Your task to perform on an android device: Search for pizza restaurants on Maps Image 0: 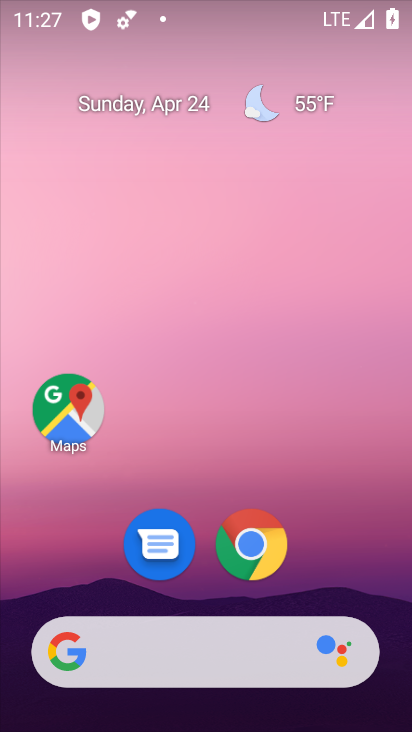
Step 0: click (63, 414)
Your task to perform on an android device: Search for pizza restaurants on Maps Image 1: 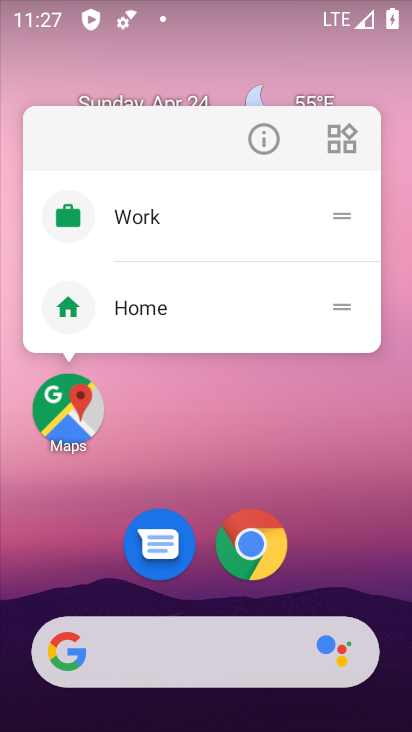
Step 1: click (70, 418)
Your task to perform on an android device: Search for pizza restaurants on Maps Image 2: 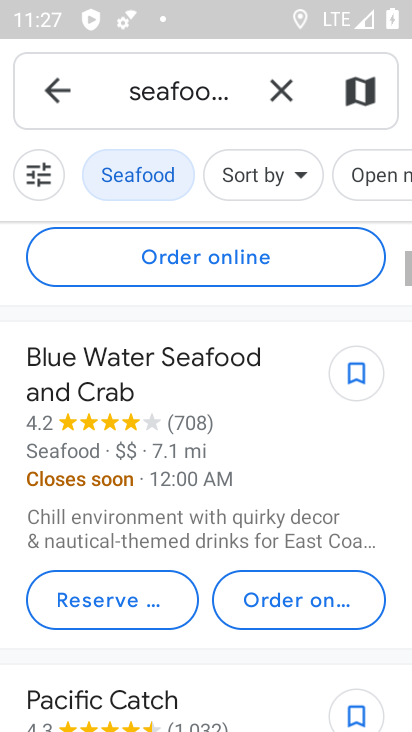
Step 2: click (282, 94)
Your task to perform on an android device: Search for pizza restaurants on Maps Image 3: 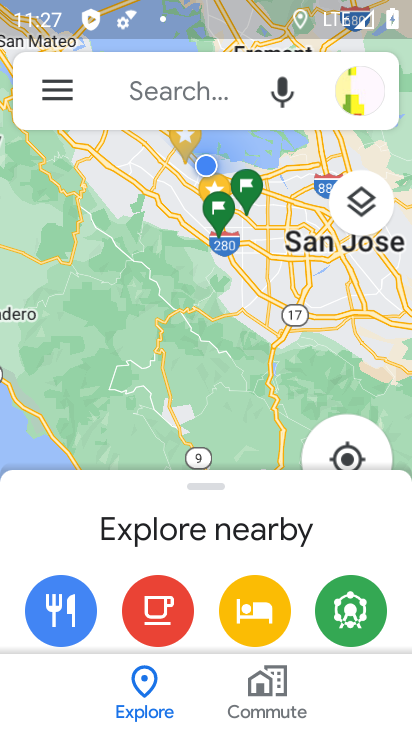
Step 3: click (164, 92)
Your task to perform on an android device: Search for pizza restaurants on Maps Image 4: 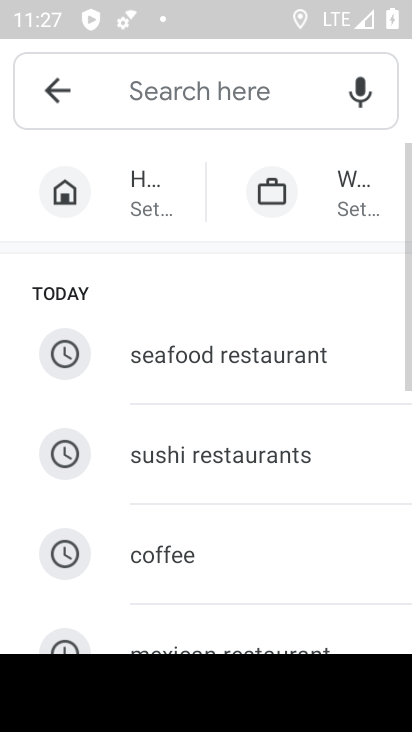
Step 4: drag from (243, 619) to (242, 200)
Your task to perform on an android device: Search for pizza restaurants on Maps Image 5: 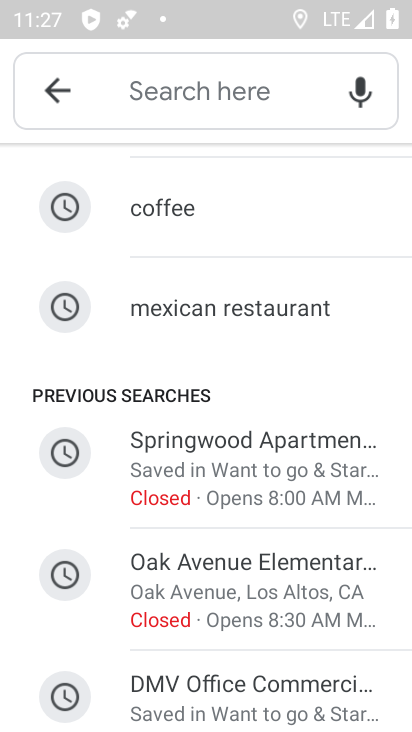
Step 5: click (196, 89)
Your task to perform on an android device: Search for pizza restaurants on Maps Image 6: 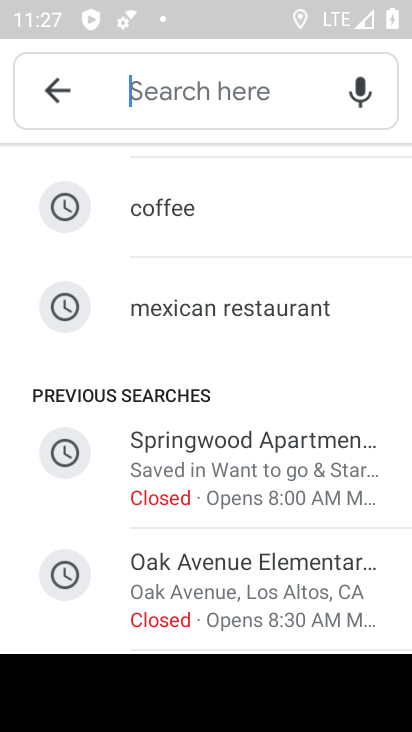
Step 6: type "pizza restaurants"
Your task to perform on an android device: Search for pizza restaurants on Maps Image 7: 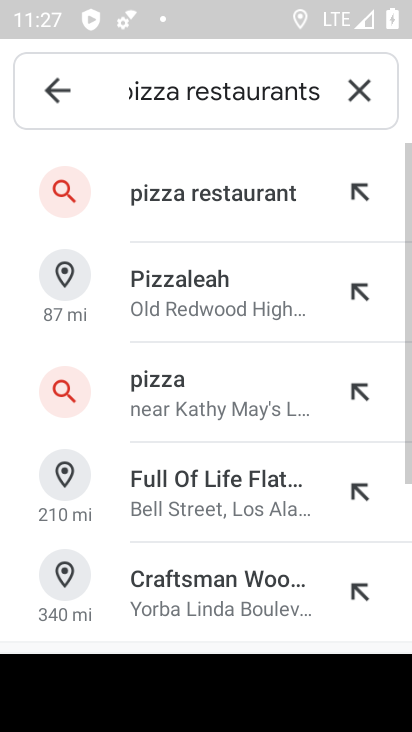
Step 7: click (69, 197)
Your task to perform on an android device: Search for pizza restaurants on Maps Image 8: 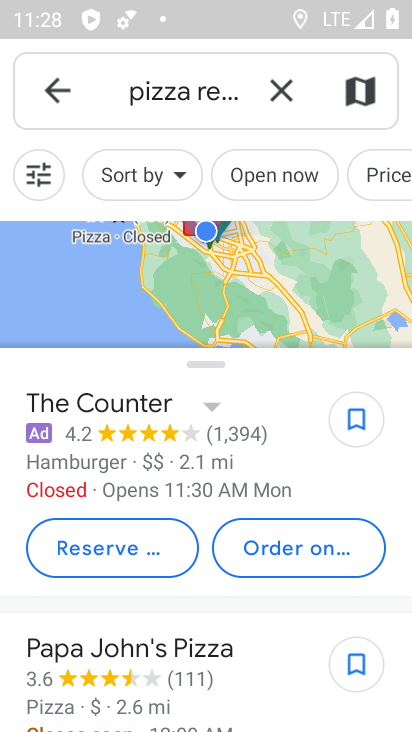
Step 8: task complete